Your task to perform on an android device: Open Wikipedia Image 0: 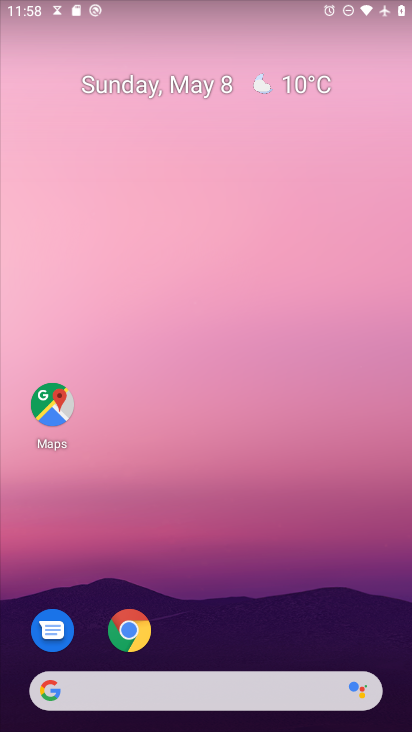
Step 0: drag from (195, 609) to (299, 78)
Your task to perform on an android device: Open Wikipedia Image 1: 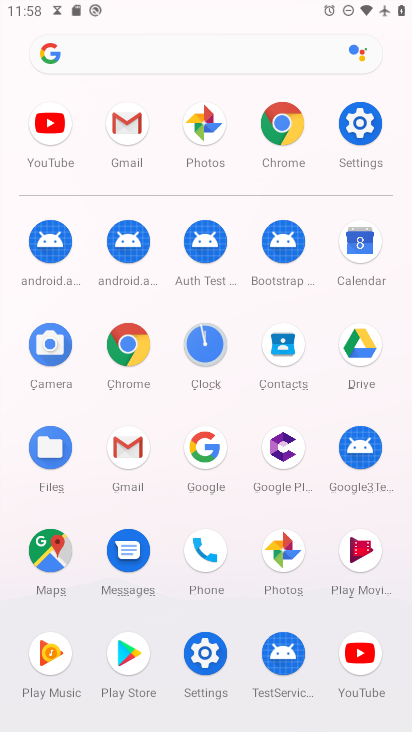
Step 1: click (275, 139)
Your task to perform on an android device: Open Wikipedia Image 2: 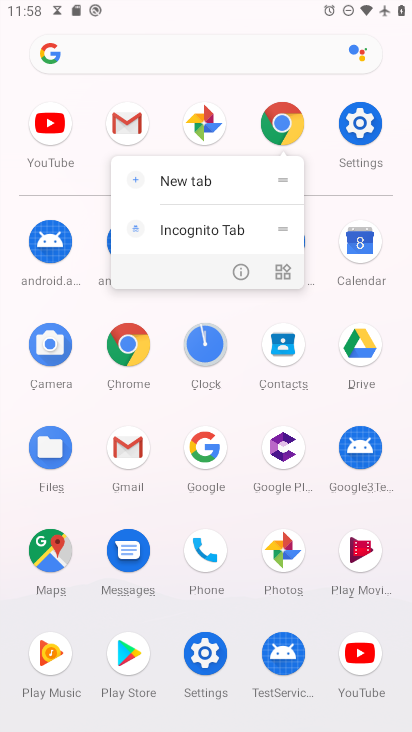
Step 2: click (267, 96)
Your task to perform on an android device: Open Wikipedia Image 3: 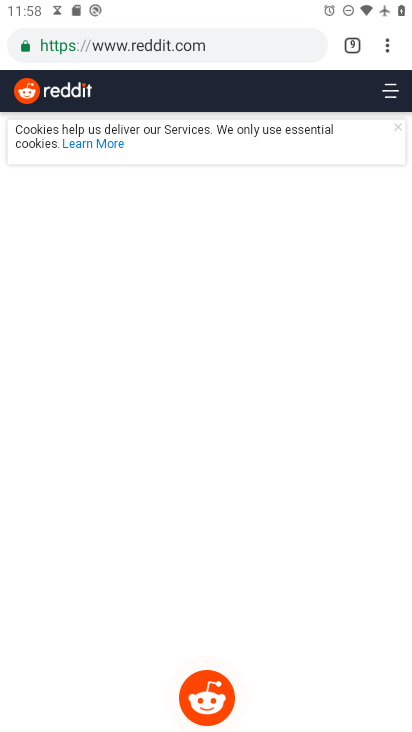
Step 3: drag from (389, 49) to (277, 93)
Your task to perform on an android device: Open Wikipedia Image 4: 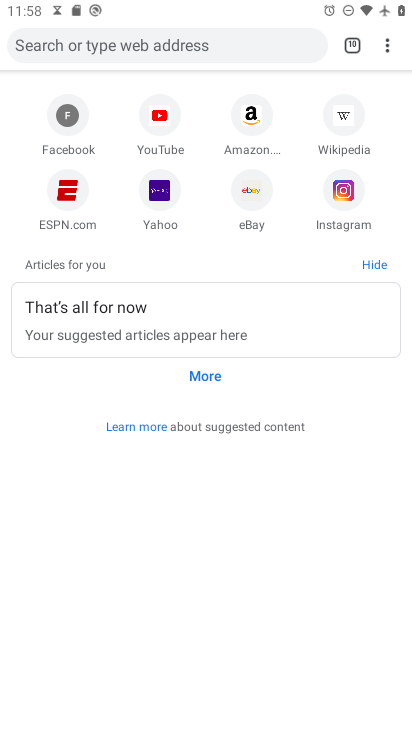
Step 4: click (345, 126)
Your task to perform on an android device: Open Wikipedia Image 5: 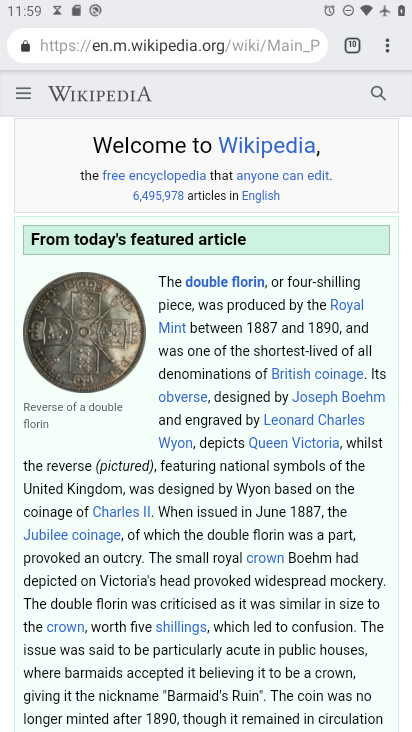
Step 5: task complete